Your task to perform on an android device: Go to Wikipedia Image 0: 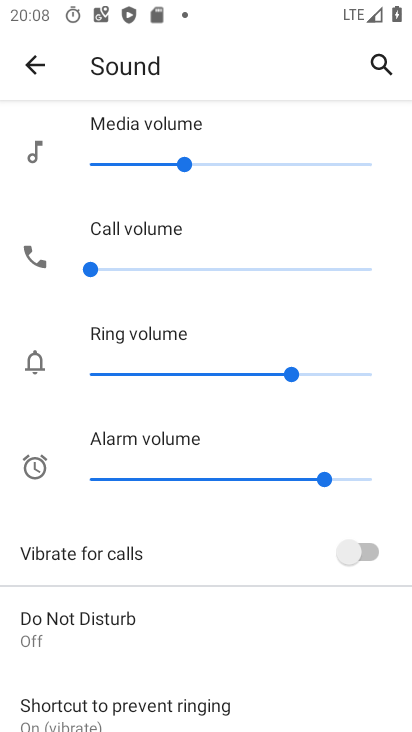
Step 0: press home button
Your task to perform on an android device: Go to Wikipedia Image 1: 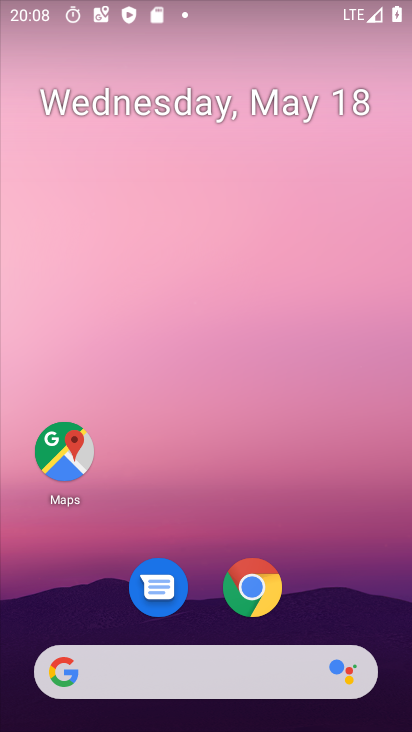
Step 1: click (247, 587)
Your task to perform on an android device: Go to Wikipedia Image 2: 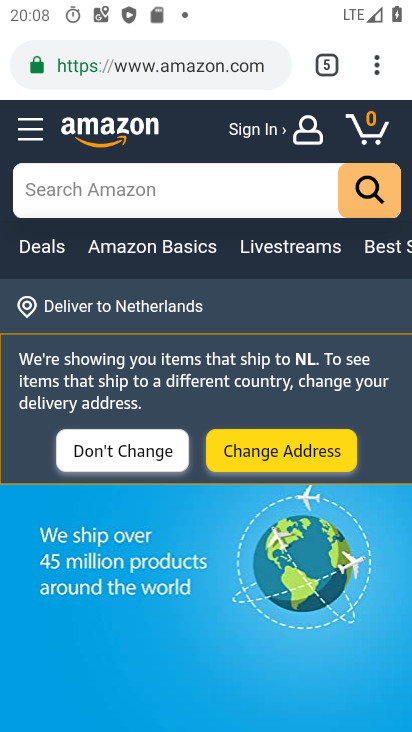
Step 2: click (320, 73)
Your task to perform on an android device: Go to Wikipedia Image 3: 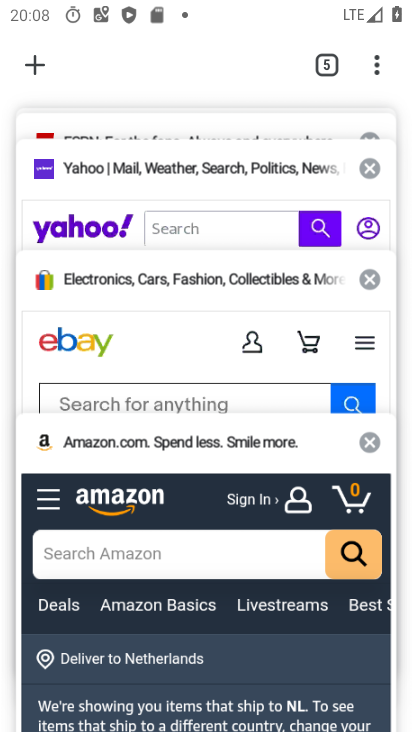
Step 3: click (37, 73)
Your task to perform on an android device: Go to Wikipedia Image 4: 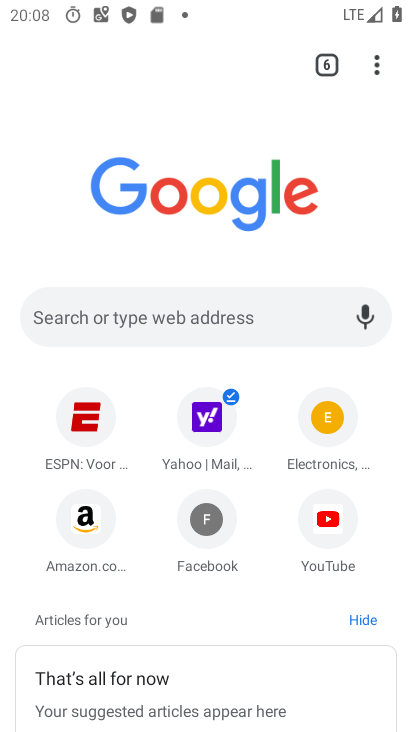
Step 4: click (174, 316)
Your task to perform on an android device: Go to Wikipedia Image 5: 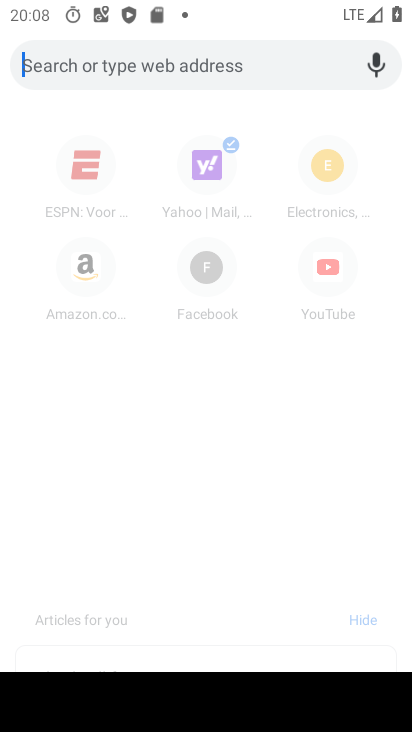
Step 5: type "wiki"
Your task to perform on an android device: Go to Wikipedia Image 6: 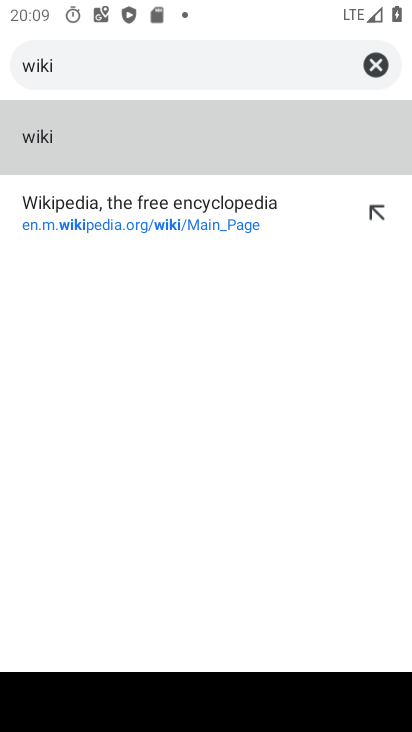
Step 6: click (154, 214)
Your task to perform on an android device: Go to Wikipedia Image 7: 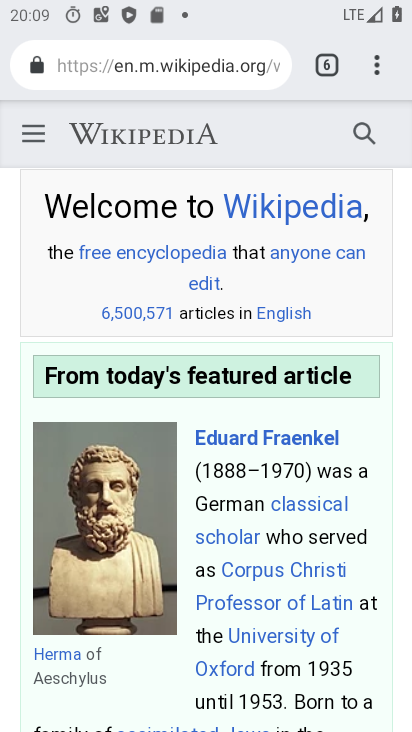
Step 7: task complete